Your task to perform on an android device: Show me popular videos on Youtube Image 0: 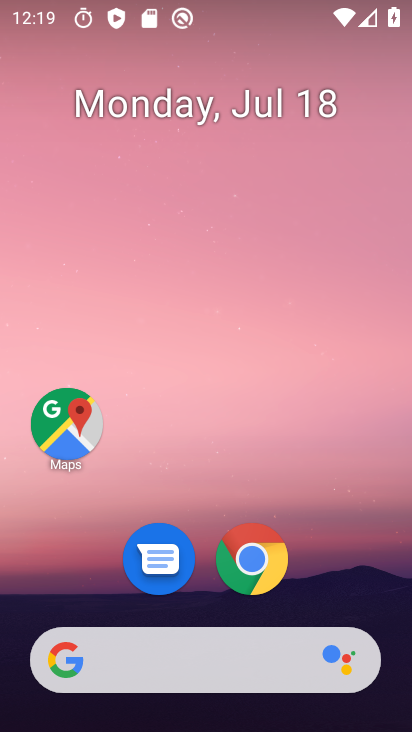
Step 0: drag from (170, 606) to (405, 591)
Your task to perform on an android device: Show me popular videos on Youtube Image 1: 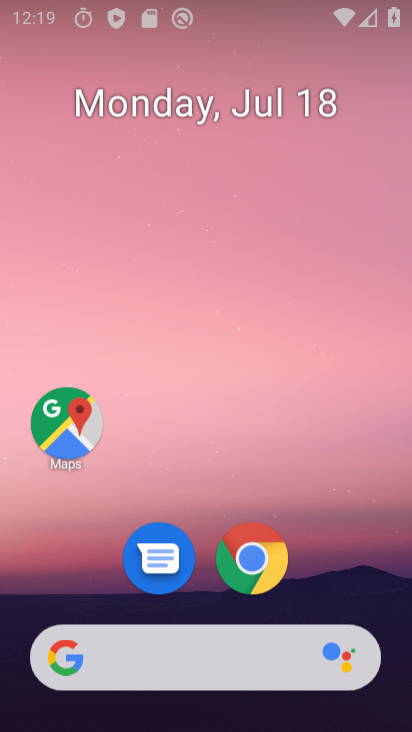
Step 1: drag from (215, 605) to (289, 6)
Your task to perform on an android device: Show me popular videos on Youtube Image 2: 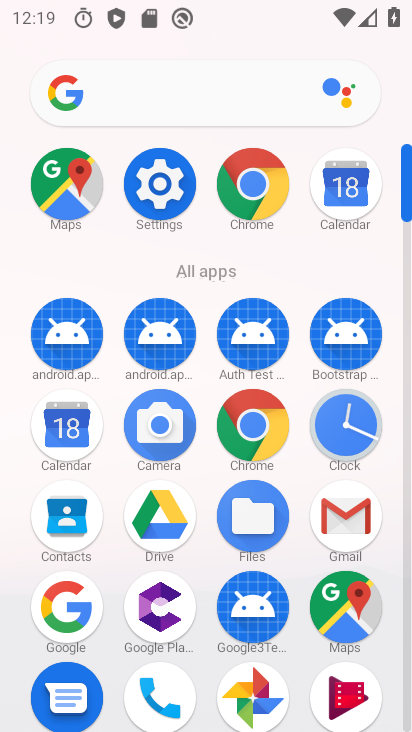
Step 2: drag from (213, 610) to (297, 29)
Your task to perform on an android device: Show me popular videos on Youtube Image 3: 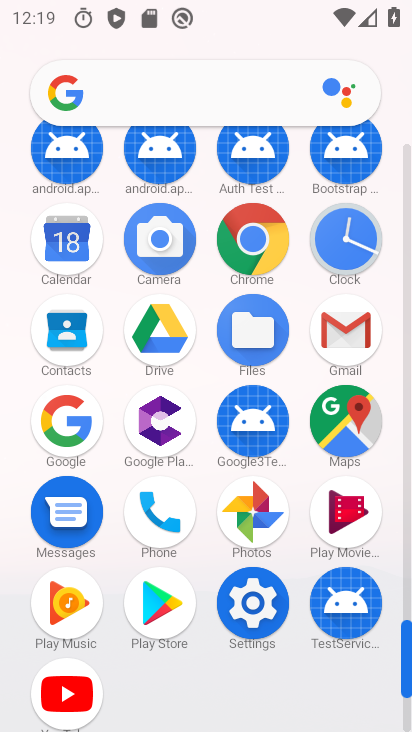
Step 3: click (77, 697)
Your task to perform on an android device: Show me popular videos on Youtube Image 4: 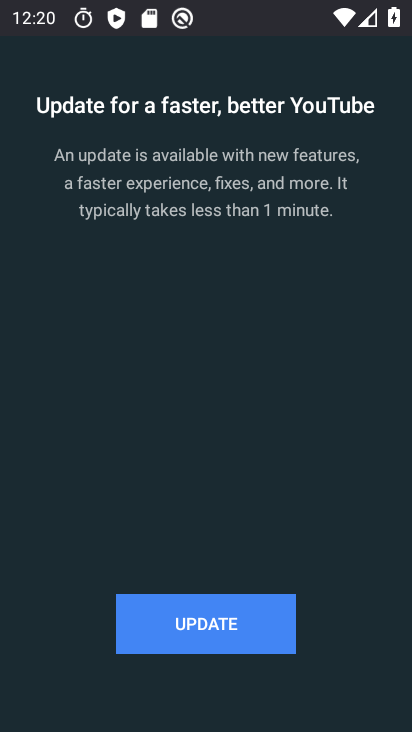
Step 4: click (185, 644)
Your task to perform on an android device: Show me popular videos on Youtube Image 5: 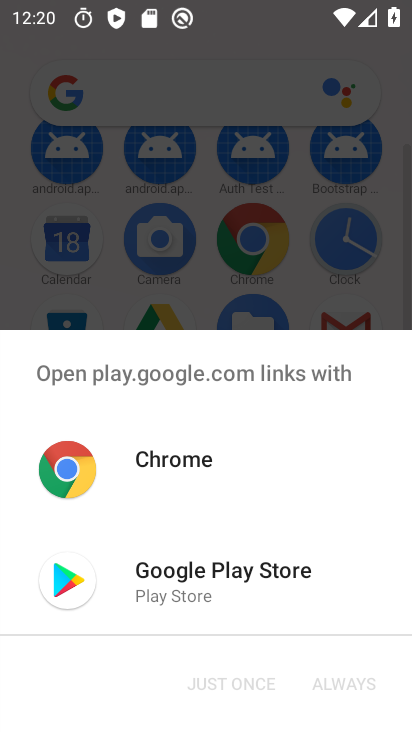
Step 5: click (184, 587)
Your task to perform on an android device: Show me popular videos on Youtube Image 6: 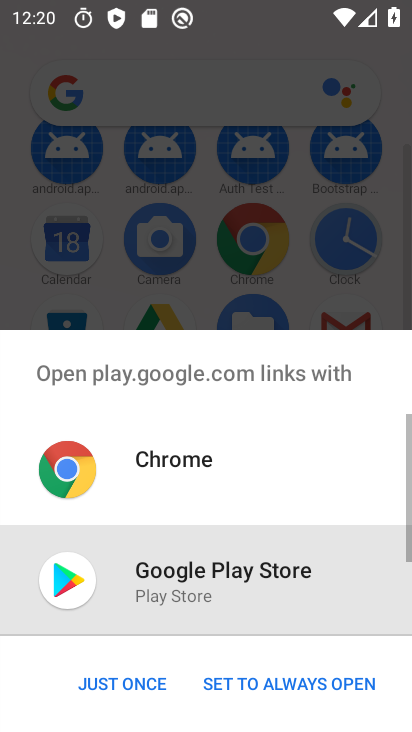
Step 6: click (125, 683)
Your task to perform on an android device: Show me popular videos on Youtube Image 7: 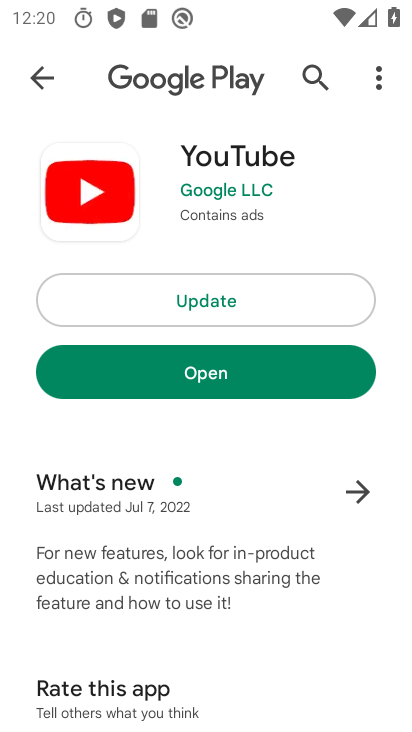
Step 7: click (191, 308)
Your task to perform on an android device: Show me popular videos on Youtube Image 8: 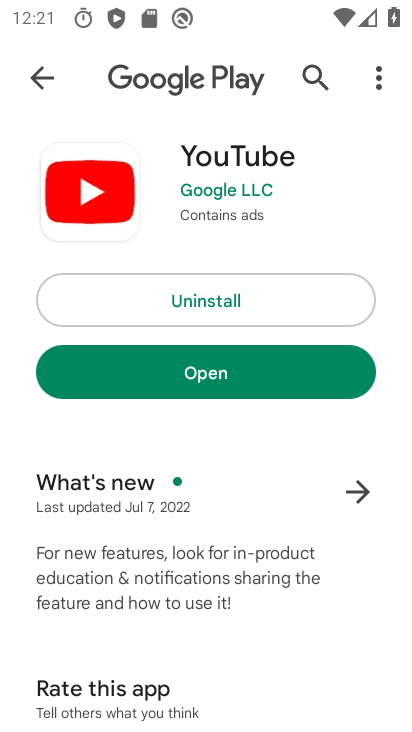
Step 8: click (220, 373)
Your task to perform on an android device: Show me popular videos on Youtube Image 9: 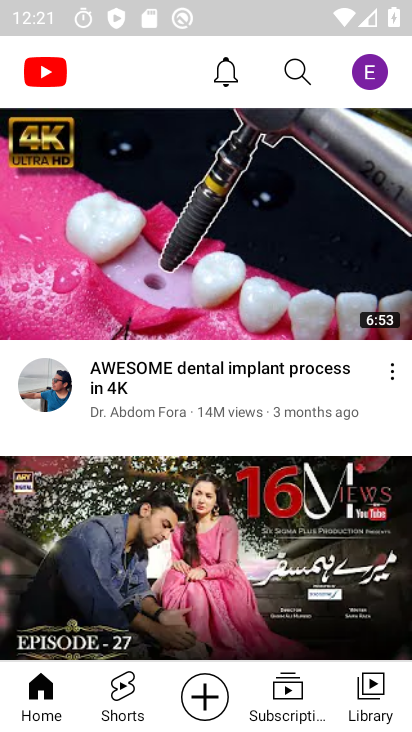
Step 9: click (363, 701)
Your task to perform on an android device: Show me popular videos on Youtube Image 10: 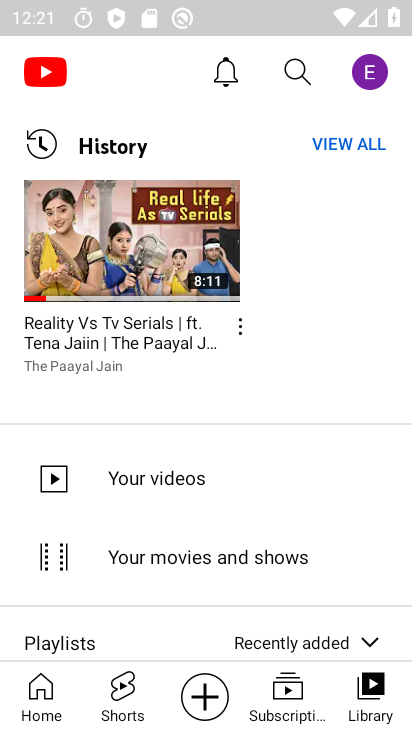
Step 10: drag from (223, 561) to (306, 50)
Your task to perform on an android device: Show me popular videos on Youtube Image 11: 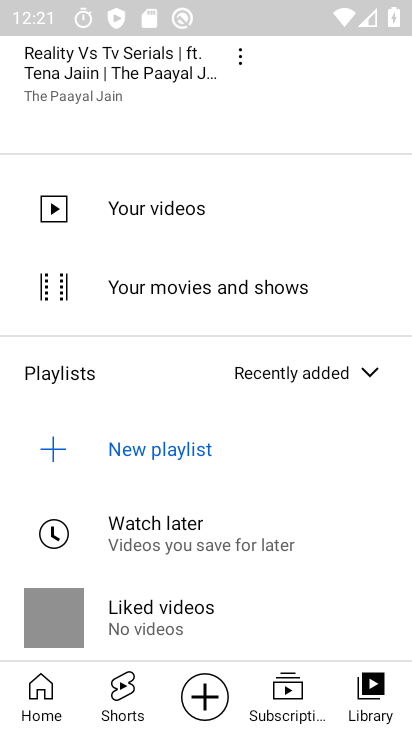
Step 11: drag from (284, 177) to (223, 574)
Your task to perform on an android device: Show me popular videos on Youtube Image 12: 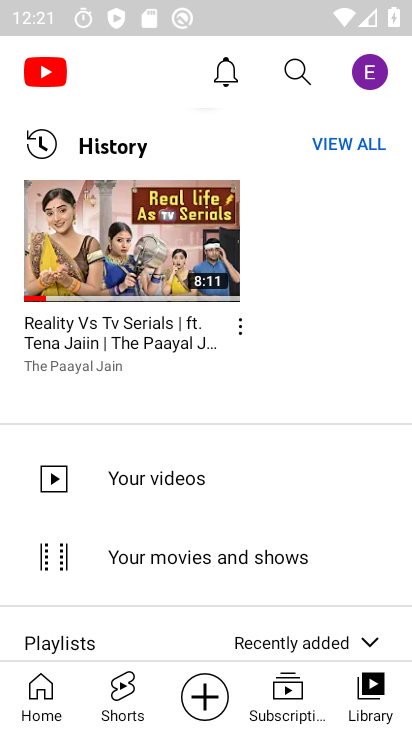
Step 12: click (19, 700)
Your task to perform on an android device: Show me popular videos on Youtube Image 13: 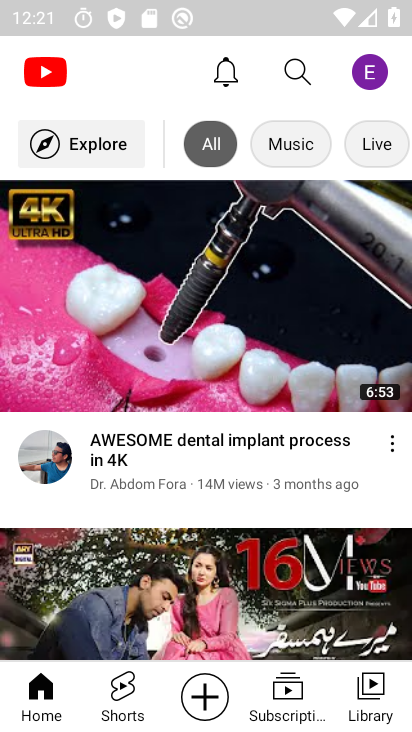
Step 13: click (79, 150)
Your task to perform on an android device: Show me popular videos on Youtube Image 14: 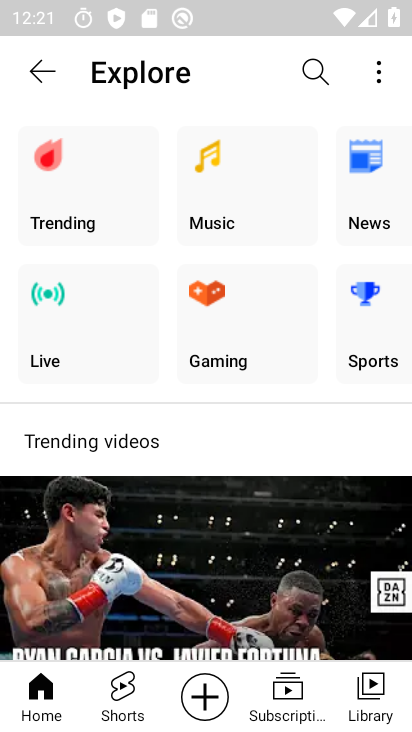
Step 14: click (48, 178)
Your task to perform on an android device: Show me popular videos on Youtube Image 15: 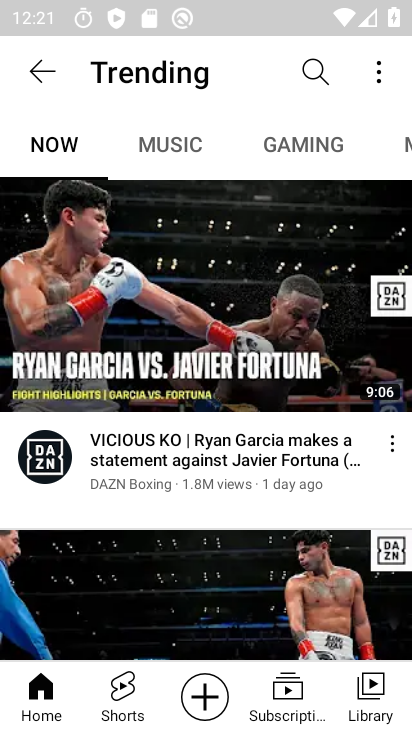
Step 15: task complete